Your task to perform on an android device: open wifi settings Image 0: 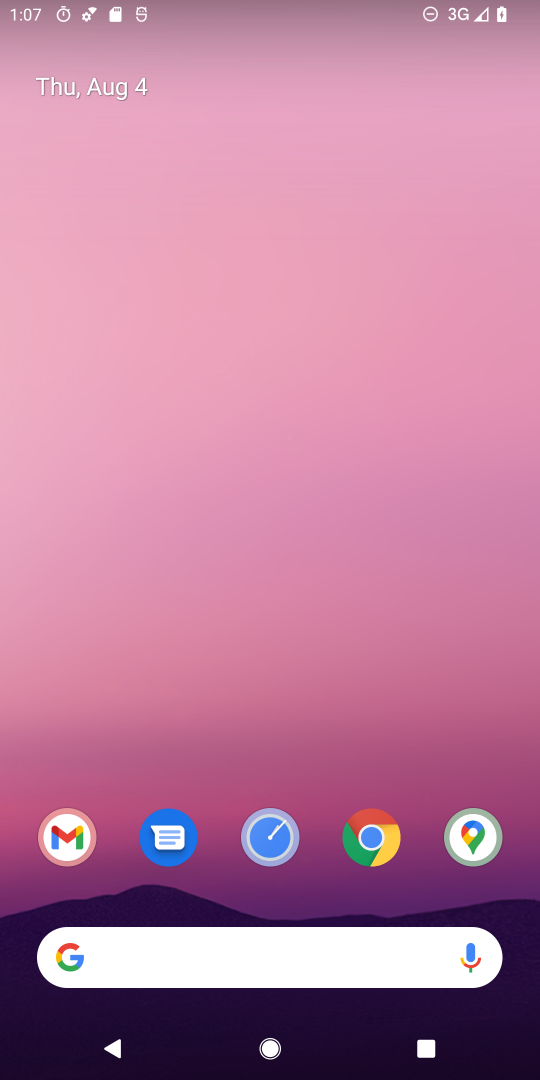
Step 0: drag from (392, 896) to (125, 33)
Your task to perform on an android device: open wifi settings Image 1: 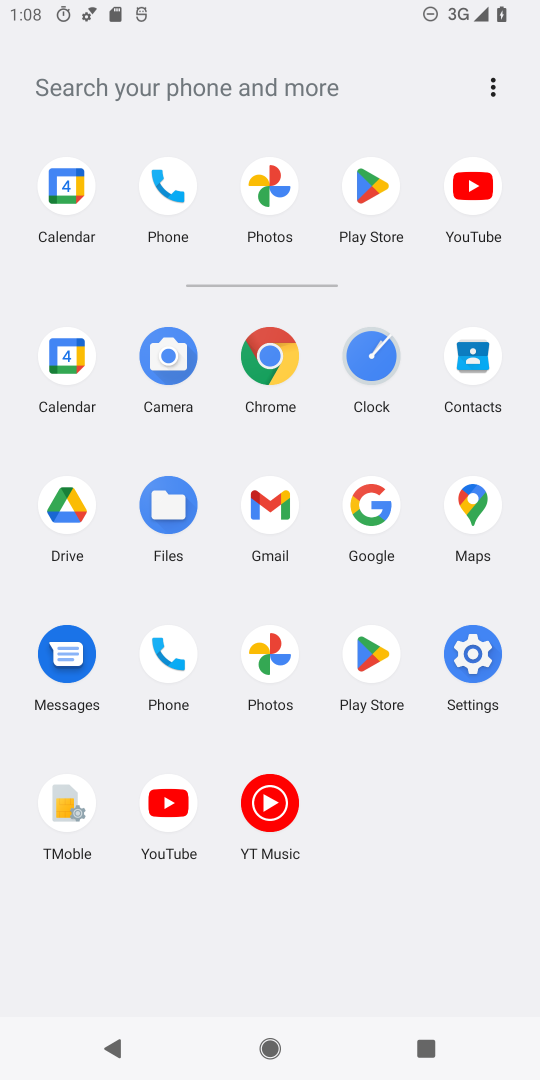
Step 1: click (454, 672)
Your task to perform on an android device: open wifi settings Image 2: 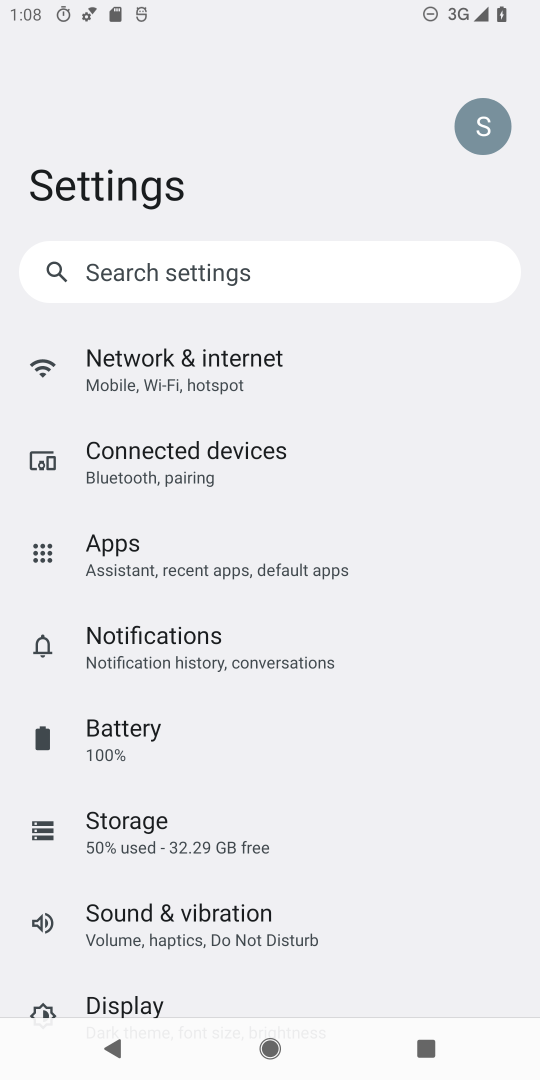
Step 2: click (200, 365)
Your task to perform on an android device: open wifi settings Image 3: 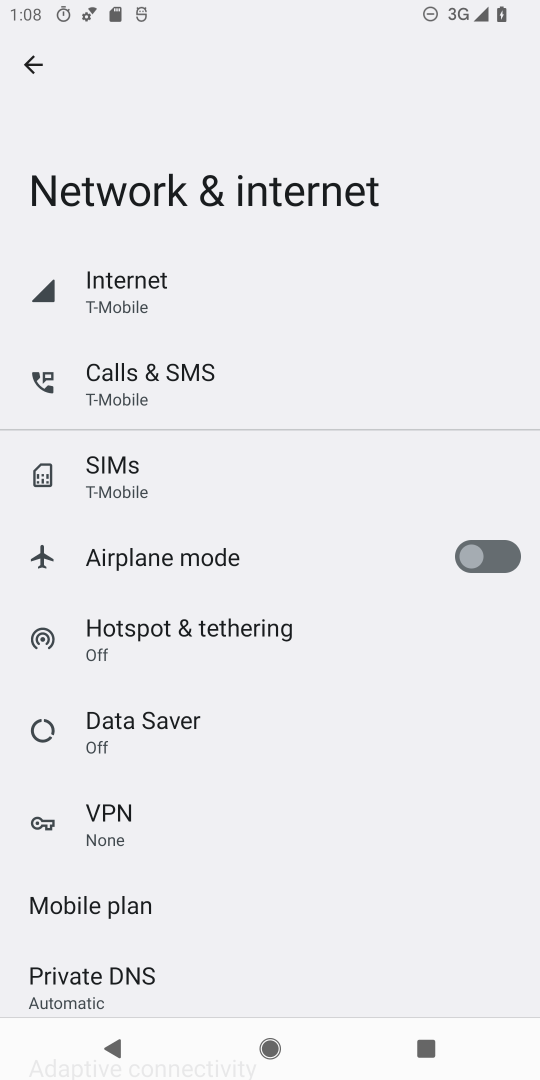
Step 3: click (150, 296)
Your task to perform on an android device: open wifi settings Image 4: 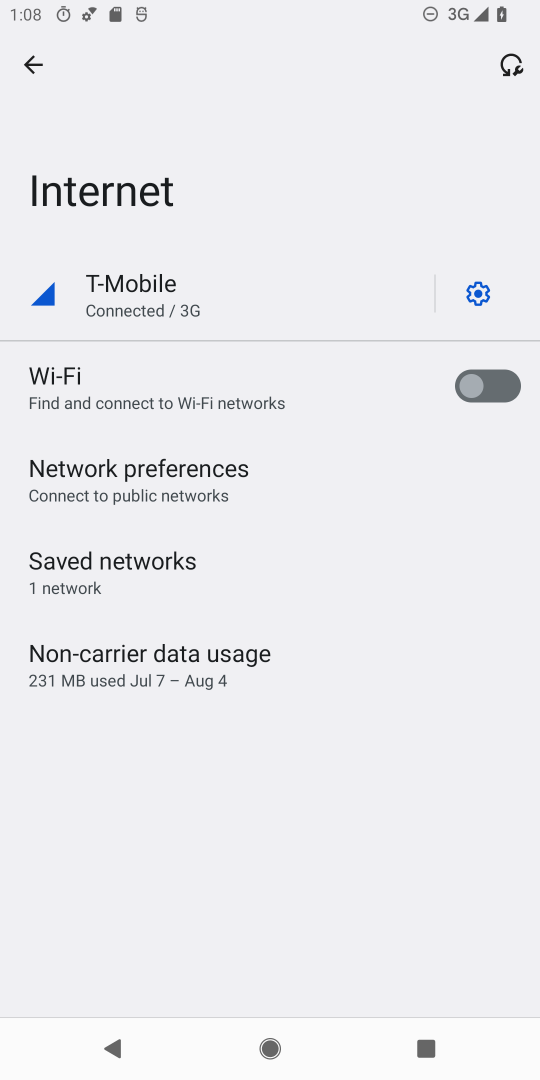
Step 4: task complete